Your task to perform on an android device: turn on airplane mode Image 0: 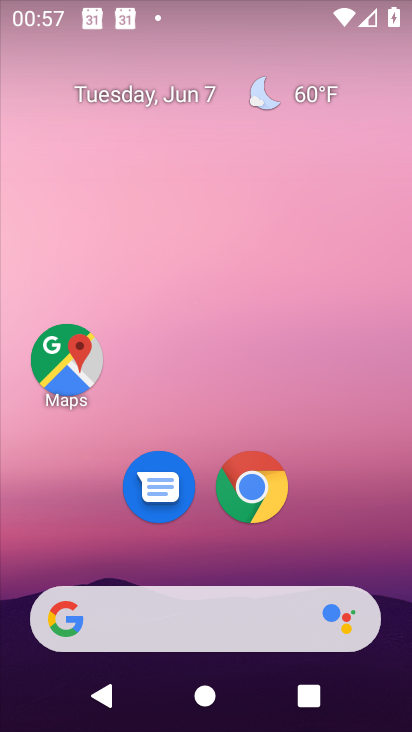
Step 0: drag from (393, 526) to (293, 127)
Your task to perform on an android device: turn on airplane mode Image 1: 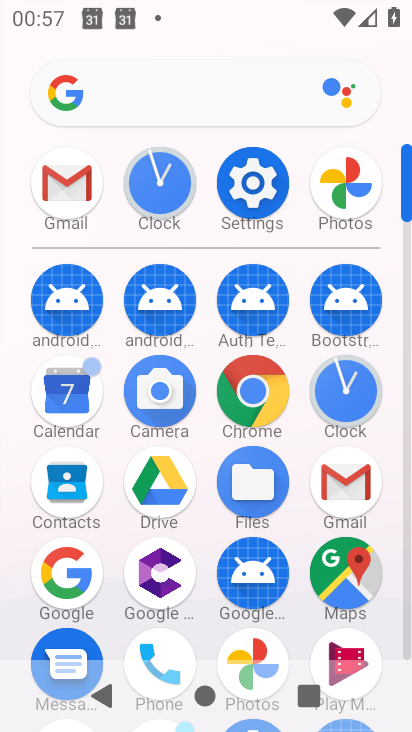
Step 1: click (249, 200)
Your task to perform on an android device: turn on airplane mode Image 2: 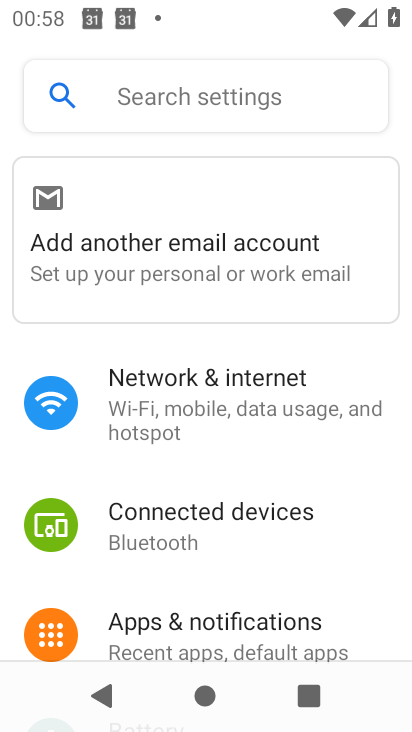
Step 2: click (270, 401)
Your task to perform on an android device: turn on airplane mode Image 3: 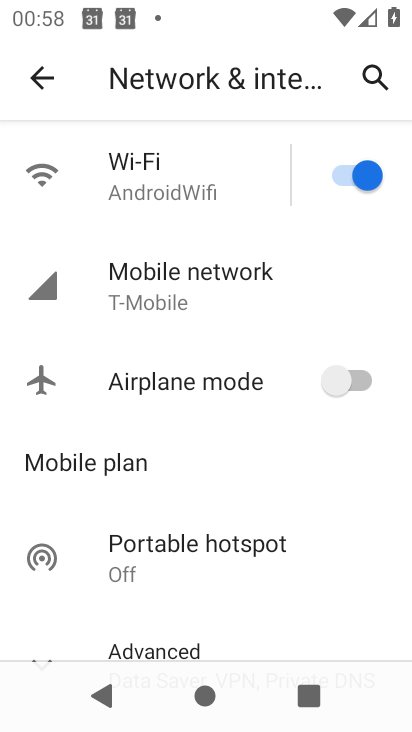
Step 3: click (362, 393)
Your task to perform on an android device: turn on airplane mode Image 4: 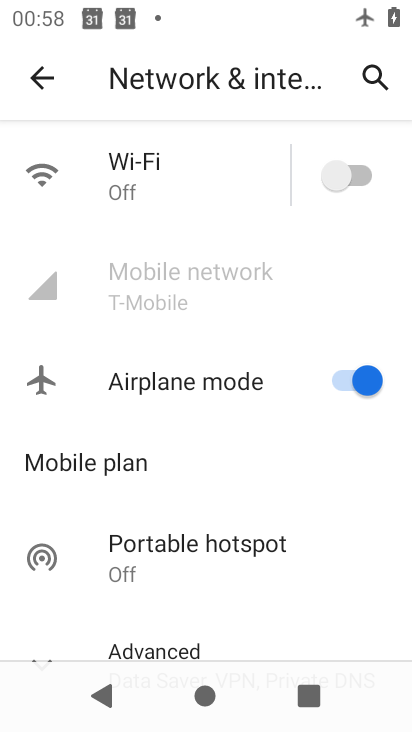
Step 4: task complete